Your task to perform on an android device: toggle javascript in the chrome app Image 0: 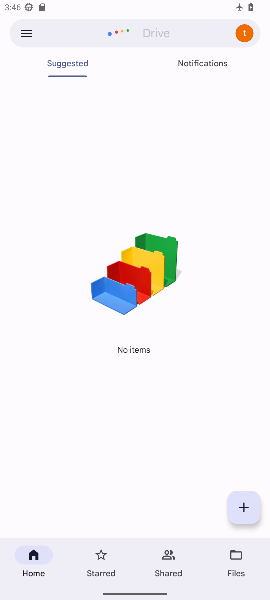
Step 0: click (103, 393)
Your task to perform on an android device: toggle javascript in the chrome app Image 1: 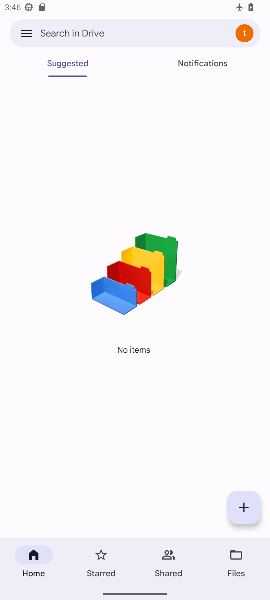
Step 1: press home button
Your task to perform on an android device: toggle javascript in the chrome app Image 2: 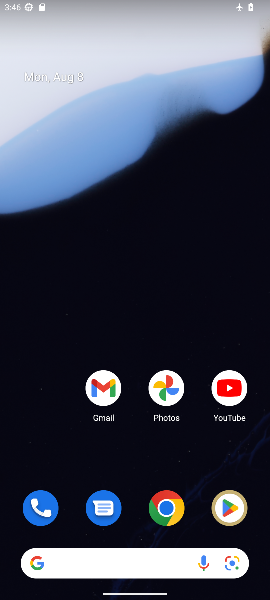
Step 2: click (163, 506)
Your task to perform on an android device: toggle javascript in the chrome app Image 3: 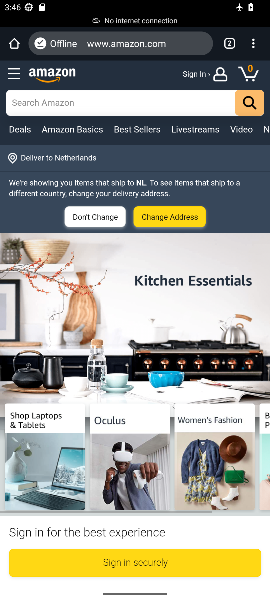
Step 3: click (255, 47)
Your task to perform on an android device: toggle javascript in the chrome app Image 4: 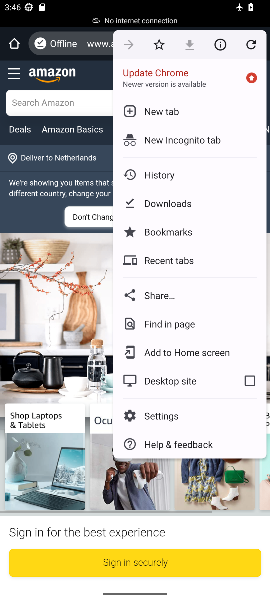
Step 4: click (163, 415)
Your task to perform on an android device: toggle javascript in the chrome app Image 5: 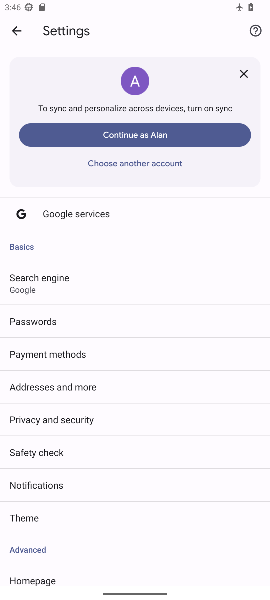
Step 5: drag from (116, 517) to (116, 268)
Your task to perform on an android device: toggle javascript in the chrome app Image 6: 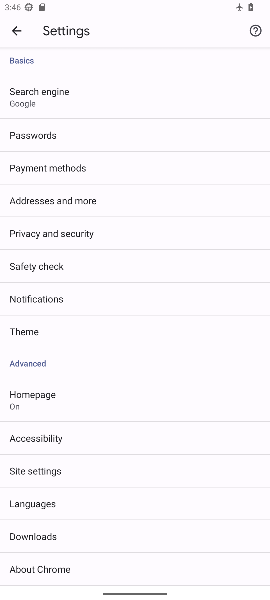
Step 6: click (46, 471)
Your task to perform on an android device: toggle javascript in the chrome app Image 7: 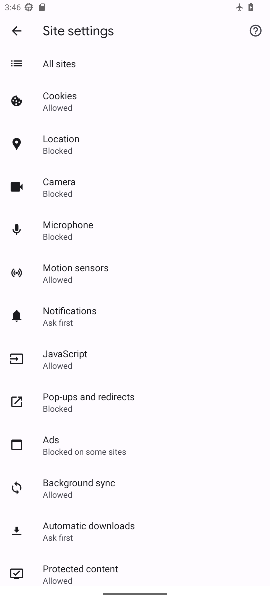
Step 7: click (62, 353)
Your task to perform on an android device: toggle javascript in the chrome app Image 8: 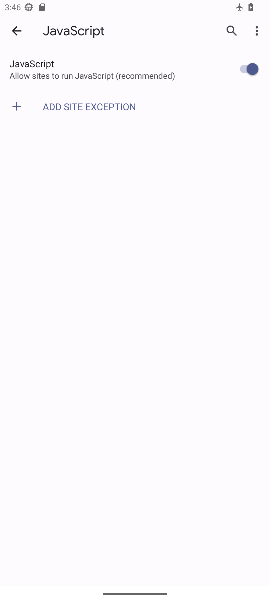
Step 8: click (250, 70)
Your task to perform on an android device: toggle javascript in the chrome app Image 9: 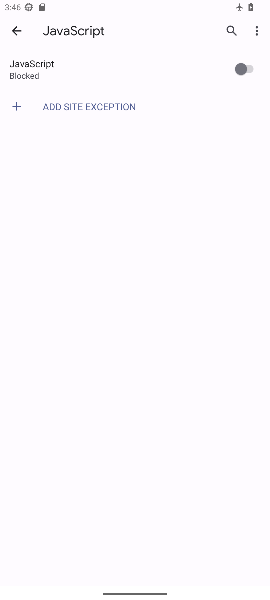
Step 9: task complete